Your task to perform on an android device: Go to notification settings Image 0: 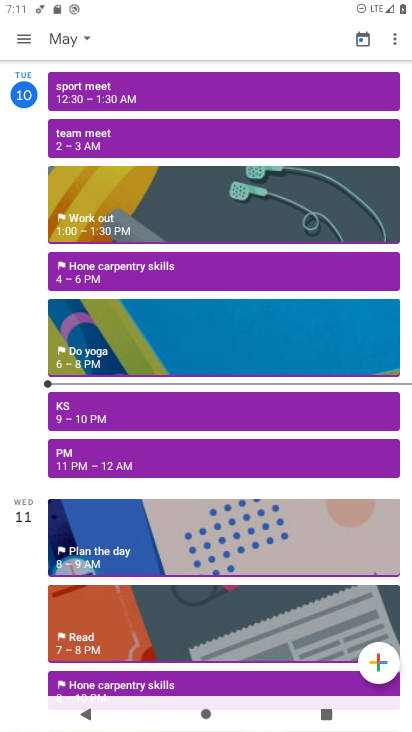
Step 0: press home button
Your task to perform on an android device: Go to notification settings Image 1: 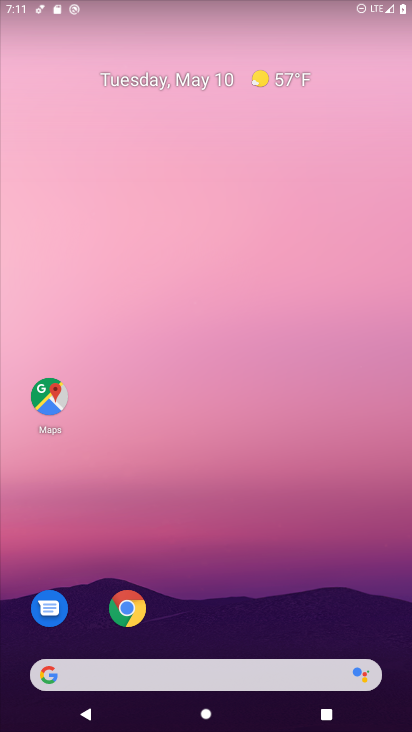
Step 1: drag from (337, 632) to (216, 19)
Your task to perform on an android device: Go to notification settings Image 2: 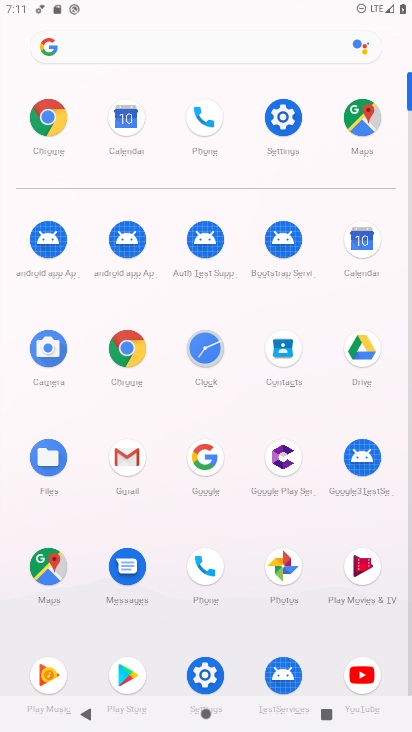
Step 2: click (212, 674)
Your task to perform on an android device: Go to notification settings Image 3: 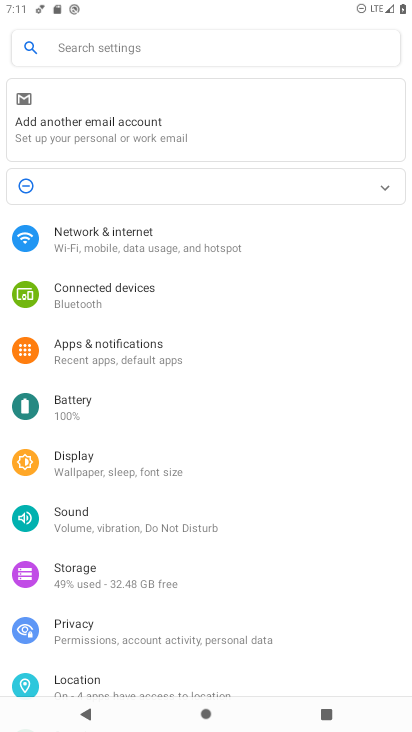
Step 3: click (140, 355)
Your task to perform on an android device: Go to notification settings Image 4: 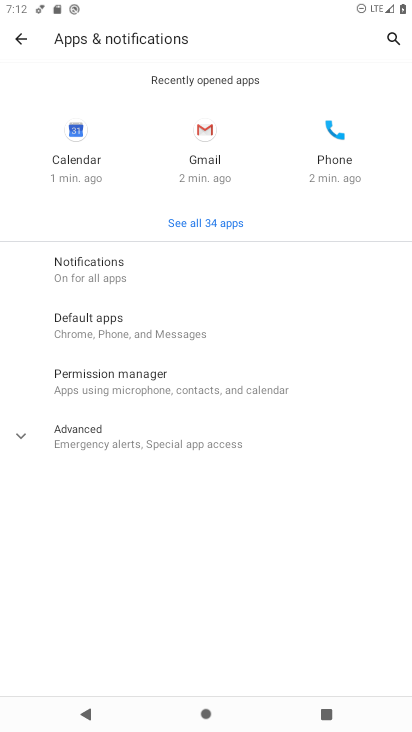
Step 4: click (123, 276)
Your task to perform on an android device: Go to notification settings Image 5: 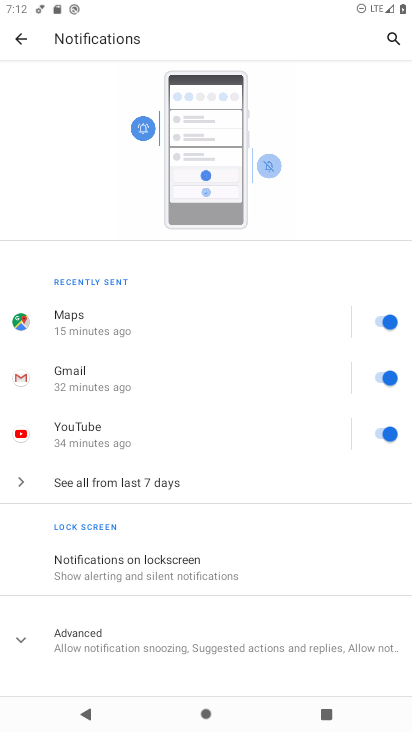
Step 5: task complete